Your task to perform on an android device: change the clock display to digital Image 0: 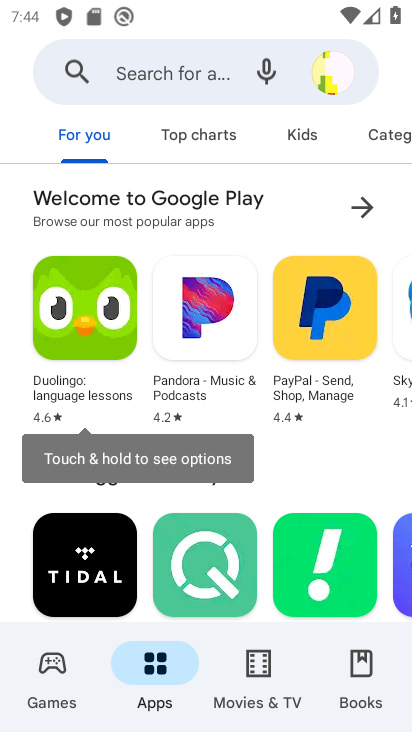
Step 0: press home button
Your task to perform on an android device: change the clock display to digital Image 1: 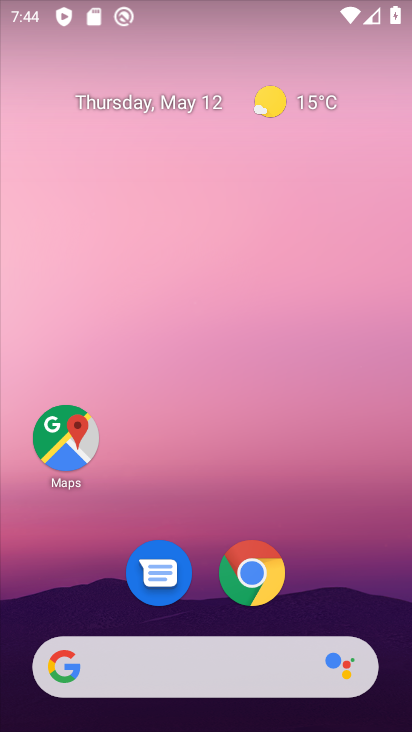
Step 1: drag from (315, 538) to (227, 156)
Your task to perform on an android device: change the clock display to digital Image 2: 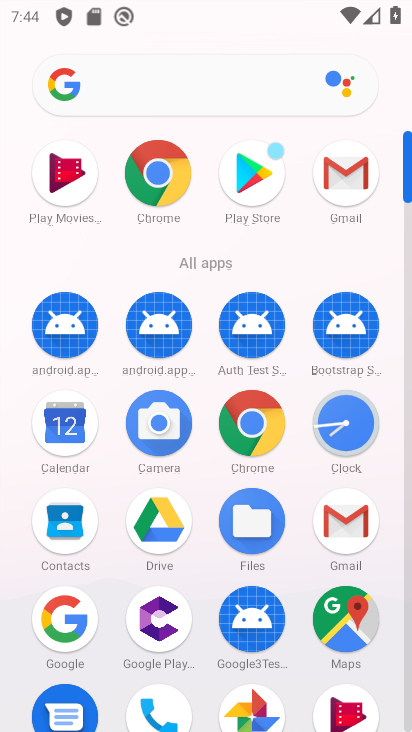
Step 2: click (340, 421)
Your task to perform on an android device: change the clock display to digital Image 3: 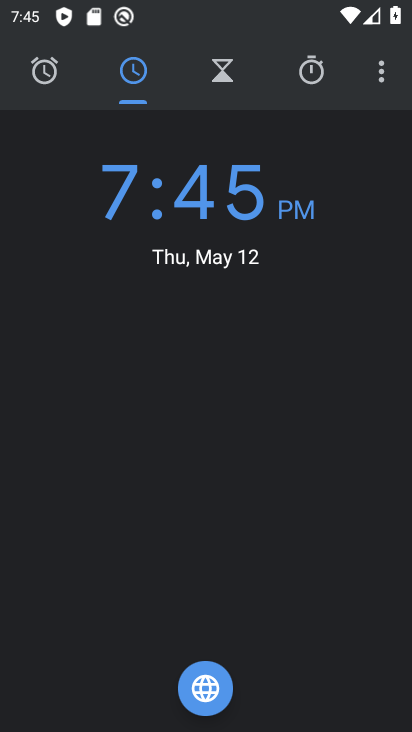
Step 3: click (384, 69)
Your task to perform on an android device: change the clock display to digital Image 4: 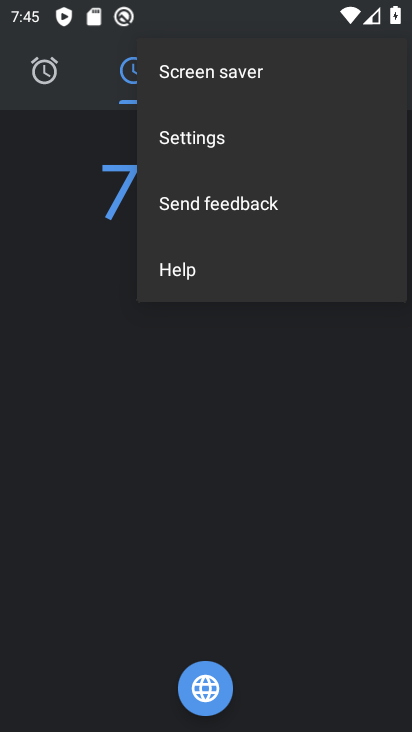
Step 4: click (190, 139)
Your task to perform on an android device: change the clock display to digital Image 5: 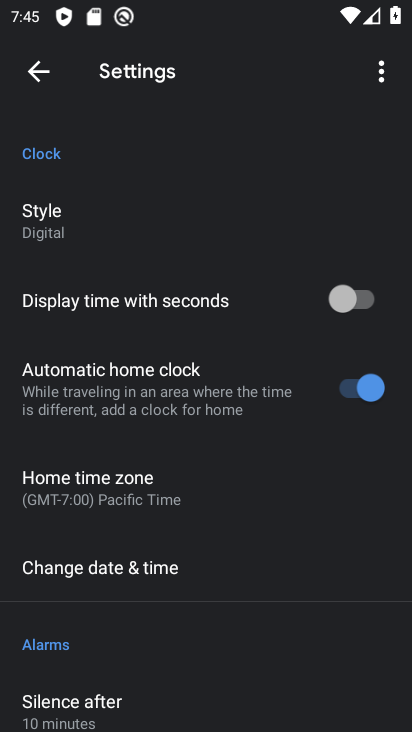
Step 5: click (42, 205)
Your task to perform on an android device: change the clock display to digital Image 6: 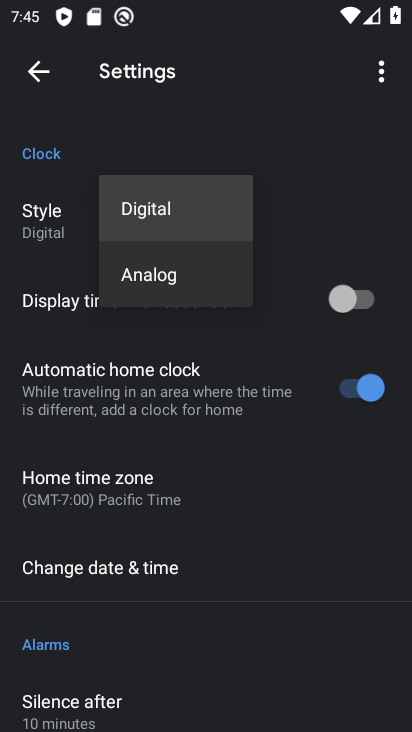
Step 6: click (132, 220)
Your task to perform on an android device: change the clock display to digital Image 7: 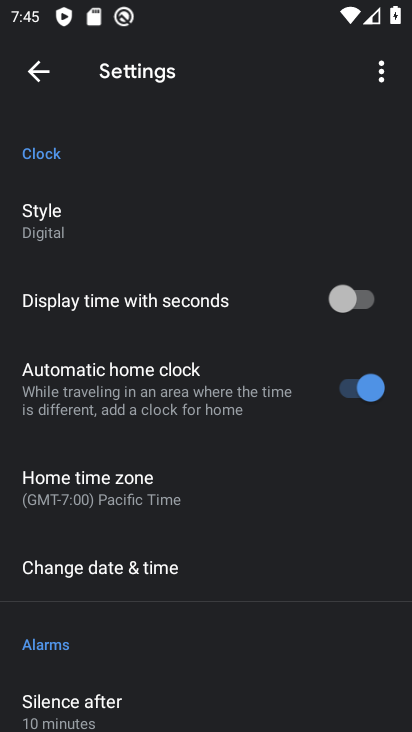
Step 7: task complete